Your task to perform on an android device: empty trash in the gmail app Image 0: 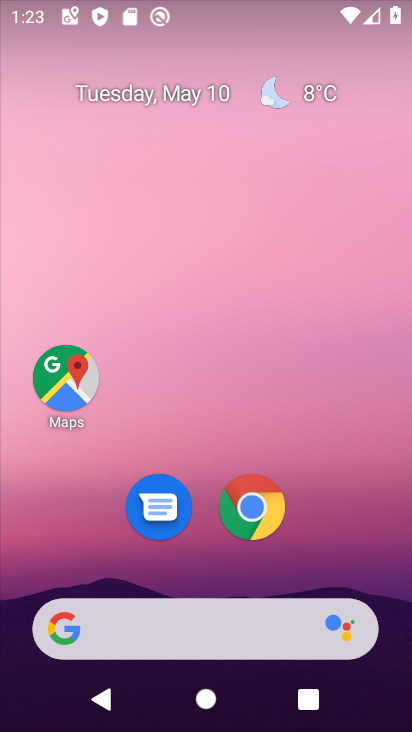
Step 0: drag from (234, 673) to (228, 238)
Your task to perform on an android device: empty trash in the gmail app Image 1: 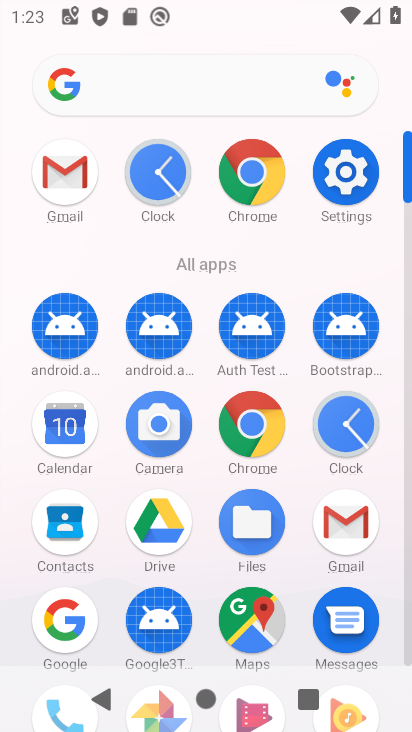
Step 1: click (63, 190)
Your task to perform on an android device: empty trash in the gmail app Image 2: 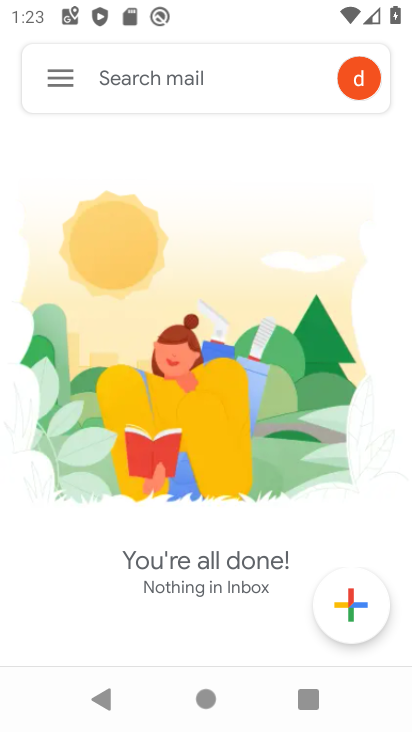
Step 2: click (45, 76)
Your task to perform on an android device: empty trash in the gmail app Image 3: 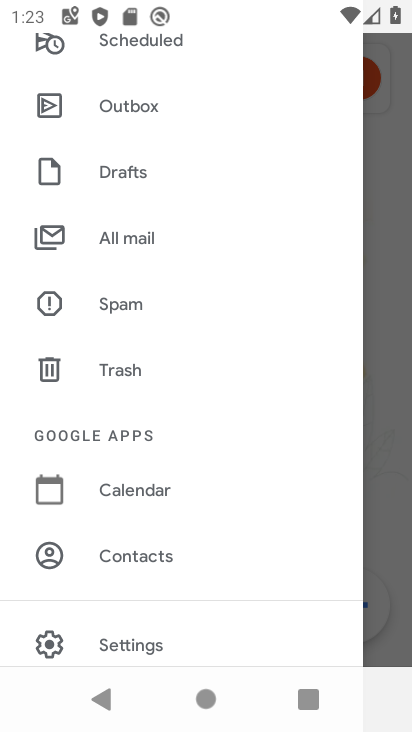
Step 3: click (135, 367)
Your task to perform on an android device: empty trash in the gmail app Image 4: 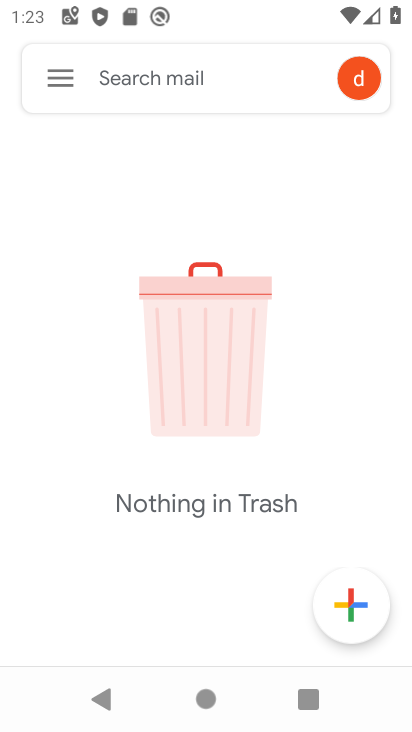
Step 4: task complete